Your task to perform on an android device: Go to Wikipedia Image 0: 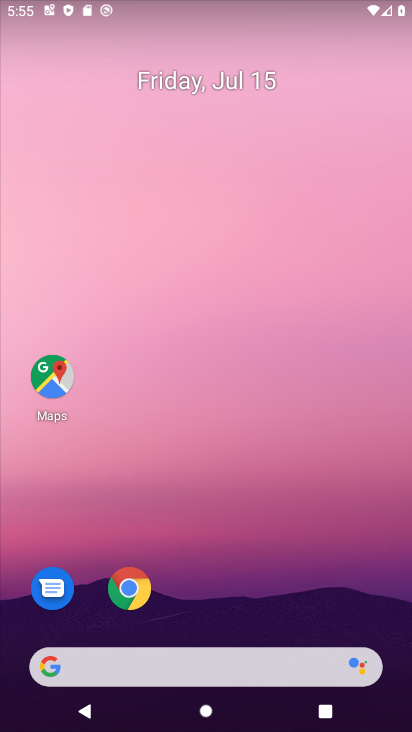
Step 0: drag from (222, 695) to (253, 38)
Your task to perform on an android device: Go to Wikipedia Image 1: 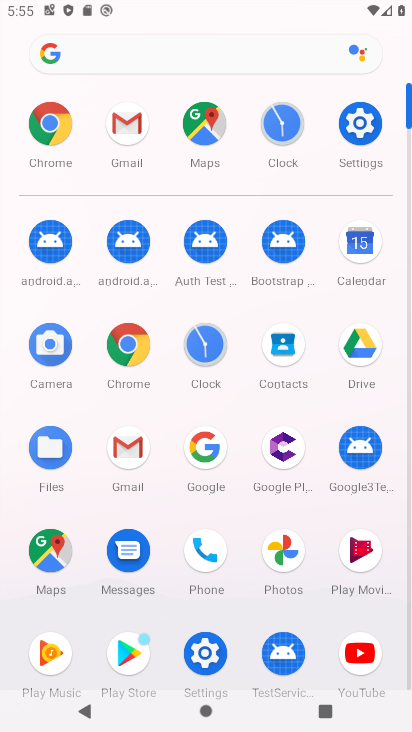
Step 1: click (130, 339)
Your task to perform on an android device: Go to Wikipedia Image 2: 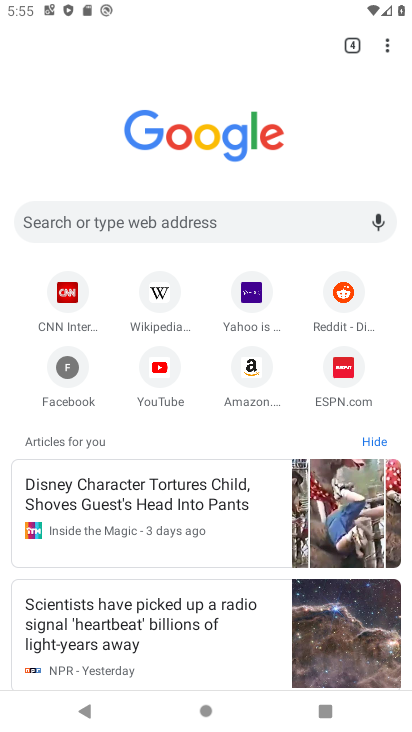
Step 2: click (392, 33)
Your task to perform on an android device: Go to Wikipedia Image 3: 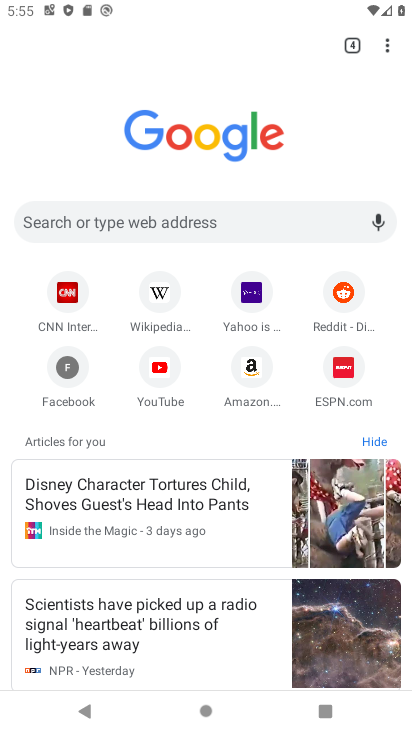
Step 3: click (169, 294)
Your task to perform on an android device: Go to Wikipedia Image 4: 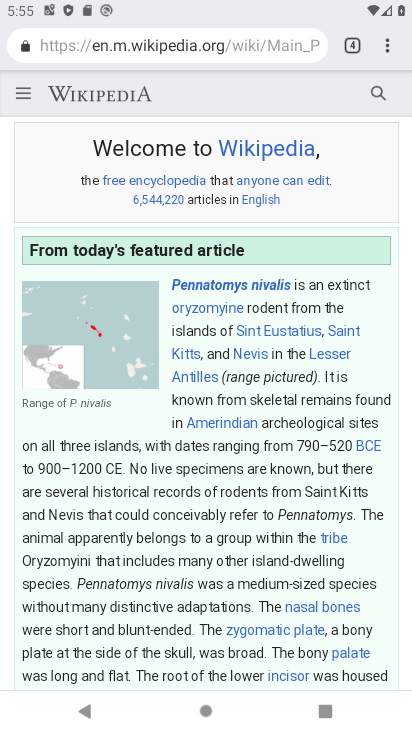
Step 4: task complete